Your task to perform on an android device: turn off translation in the chrome app Image 0: 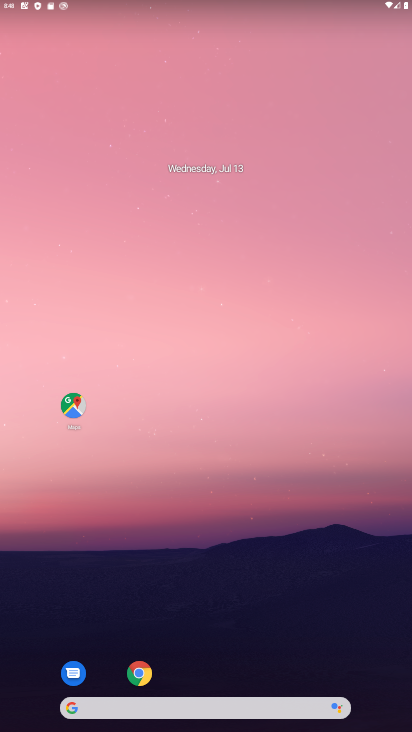
Step 0: click (141, 673)
Your task to perform on an android device: turn off translation in the chrome app Image 1: 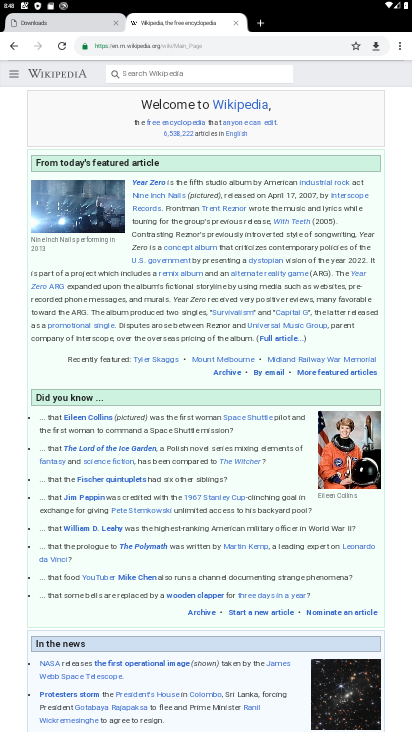
Step 1: click (402, 39)
Your task to perform on an android device: turn off translation in the chrome app Image 2: 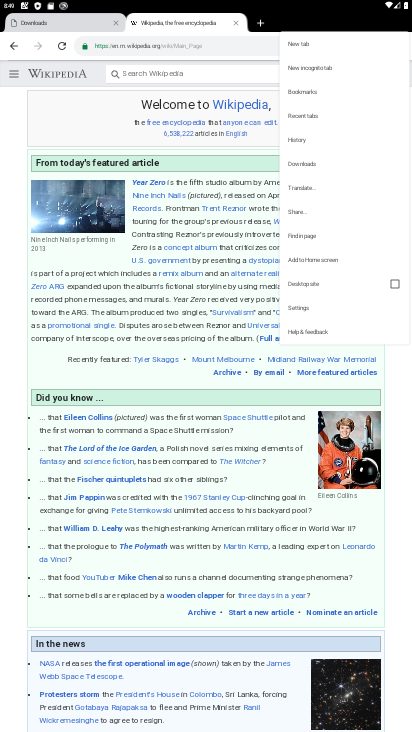
Step 2: click (314, 310)
Your task to perform on an android device: turn off translation in the chrome app Image 3: 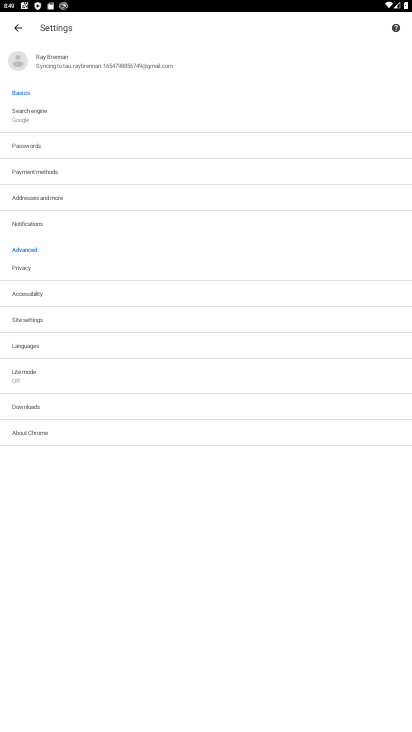
Step 3: click (47, 349)
Your task to perform on an android device: turn off translation in the chrome app Image 4: 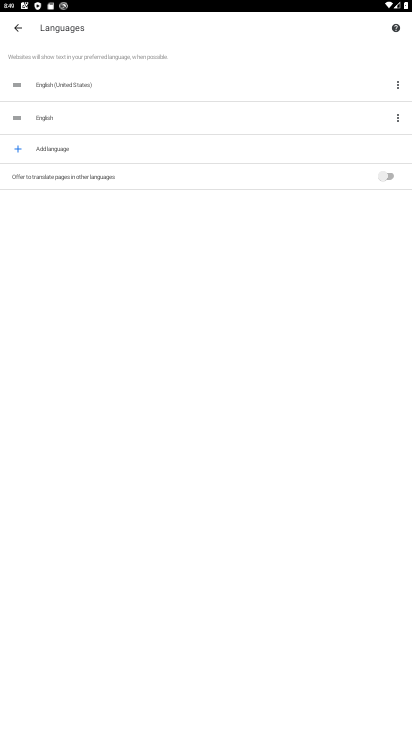
Step 4: task complete